Your task to perform on an android device: see tabs open on other devices in the chrome app Image 0: 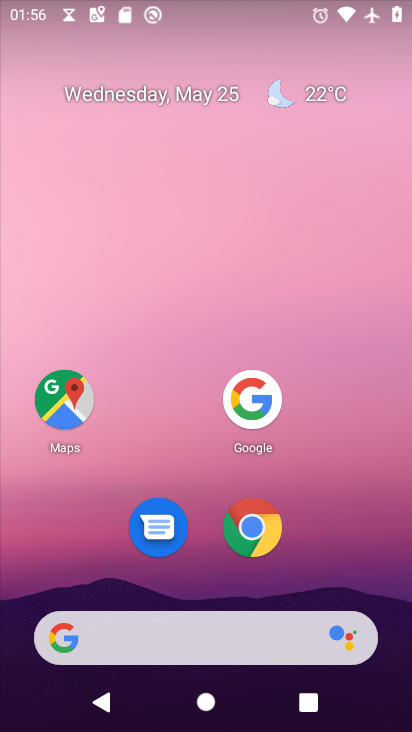
Step 0: press home button
Your task to perform on an android device: see tabs open on other devices in the chrome app Image 1: 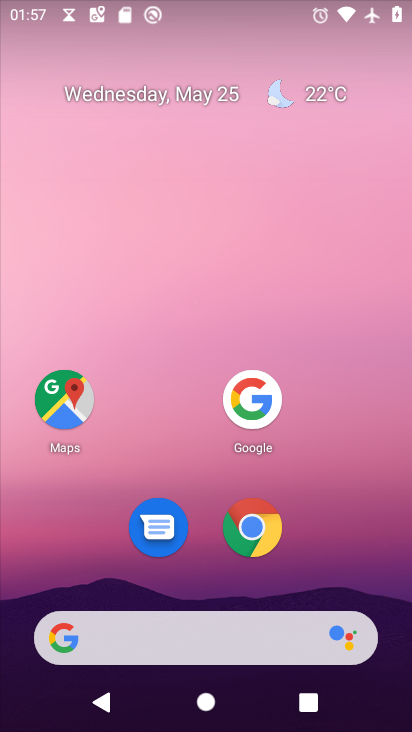
Step 1: click (266, 542)
Your task to perform on an android device: see tabs open on other devices in the chrome app Image 2: 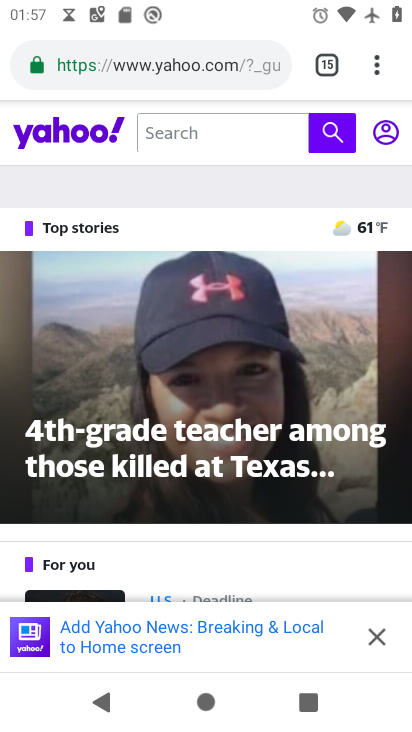
Step 2: task complete